Your task to perform on an android device: change your default location settings in chrome Image 0: 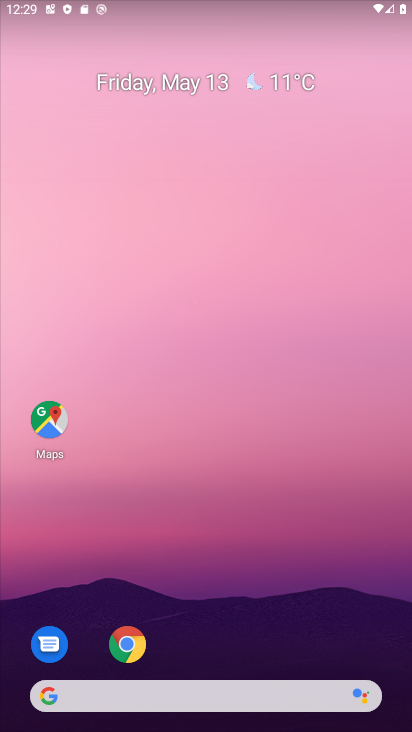
Step 0: drag from (215, 725) to (212, 144)
Your task to perform on an android device: change your default location settings in chrome Image 1: 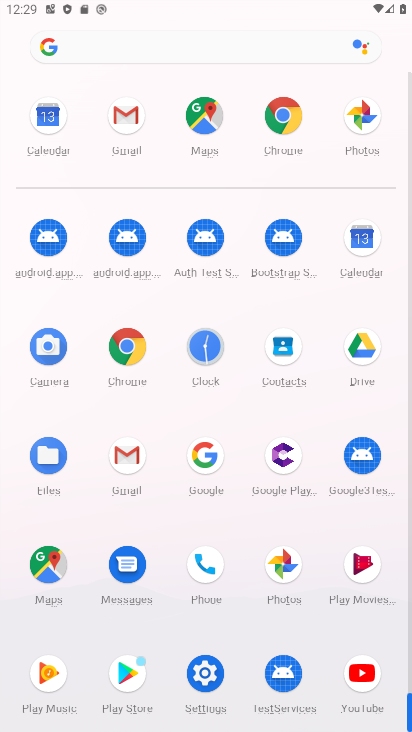
Step 1: click (286, 115)
Your task to perform on an android device: change your default location settings in chrome Image 2: 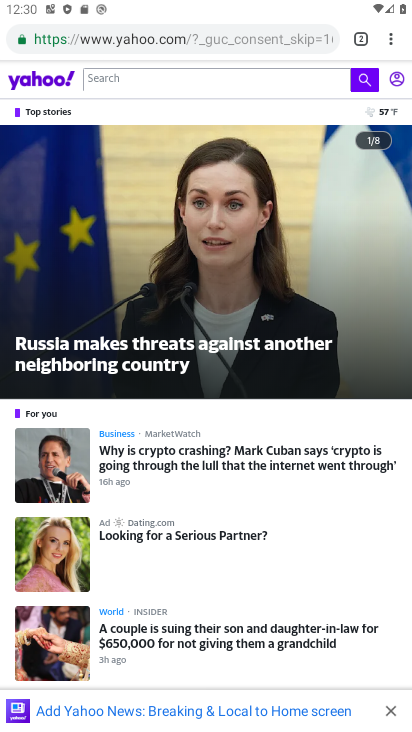
Step 2: click (391, 40)
Your task to perform on an android device: change your default location settings in chrome Image 3: 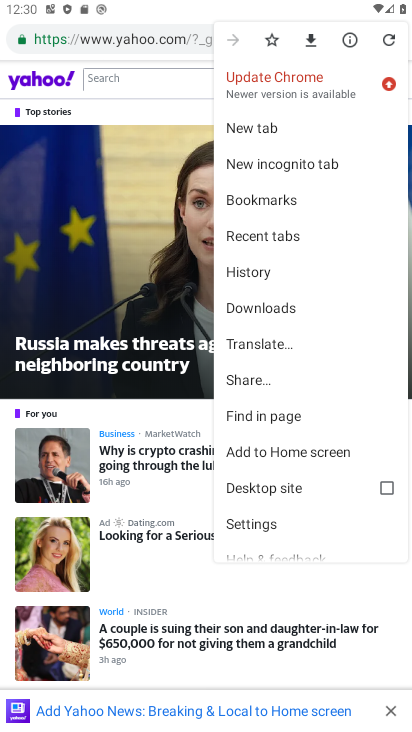
Step 3: click (247, 521)
Your task to perform on an android device: change your default location settings in chrome Image 4: 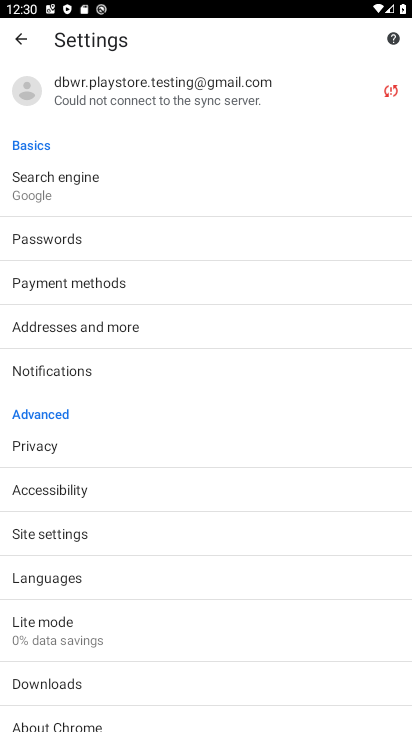
Step 4: click (69, 530)
Your task to perform on an android device: change your default location settings in chrome Image 5: 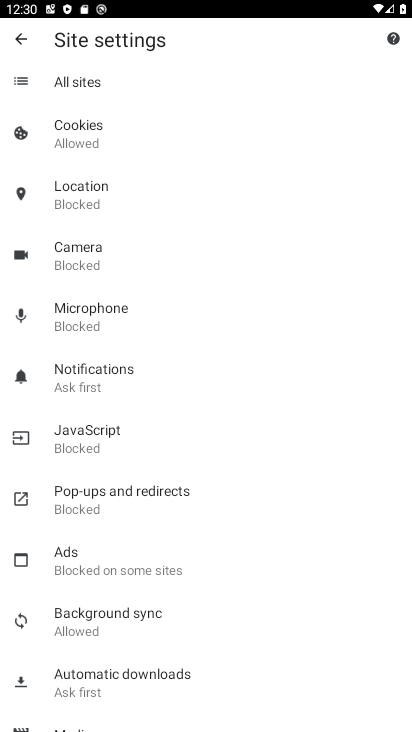
Step 5: click (74, 203)
Your task to perform on an android device: change your default location settings in chrome Image 6: 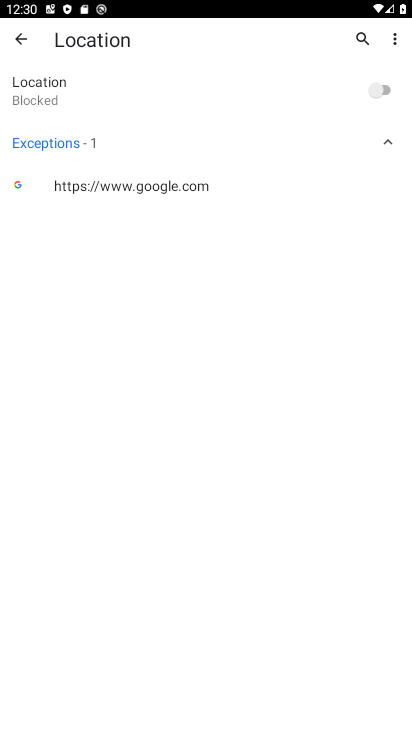
Step 6: click (385, 90)
Your task to perform on an android device: change your default location settings in chrome Image 7: 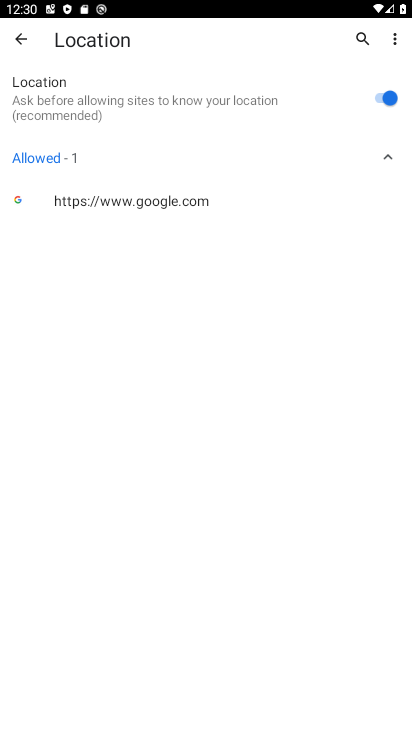
Step 7: task complete